Your task to perform on an android device: remove spam from my inbox in the gmail app Image 0: 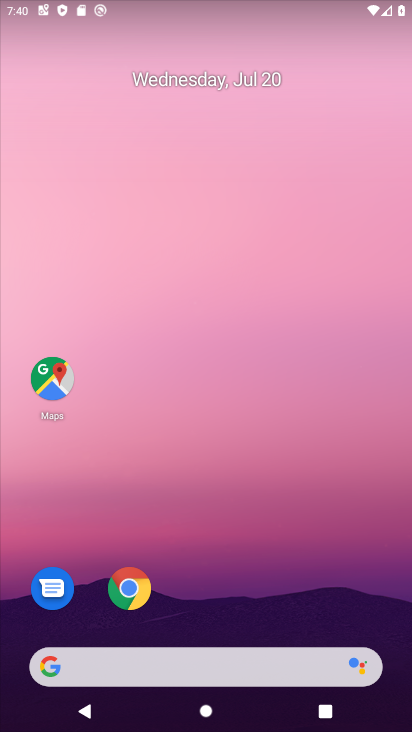
Step 0: drag from (218, 583) to (176, 23)
Your task to perform on an android device: remove spam from my inbox in the gmail app Image 1: 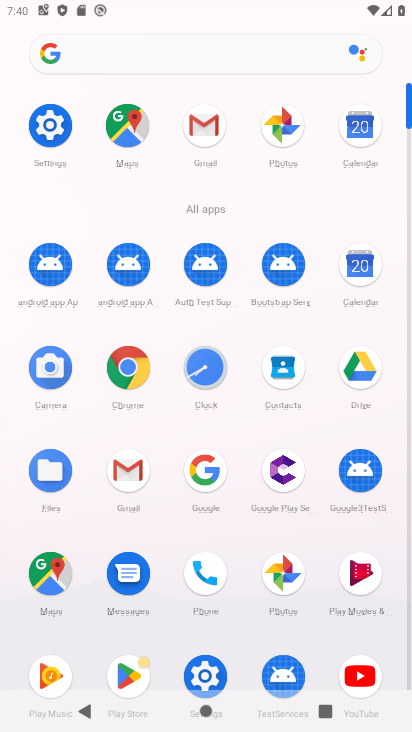
Step 1: click (127, 474)
Your task to perform on an android device: remove spam from my inbox in the gmail app Image 2: 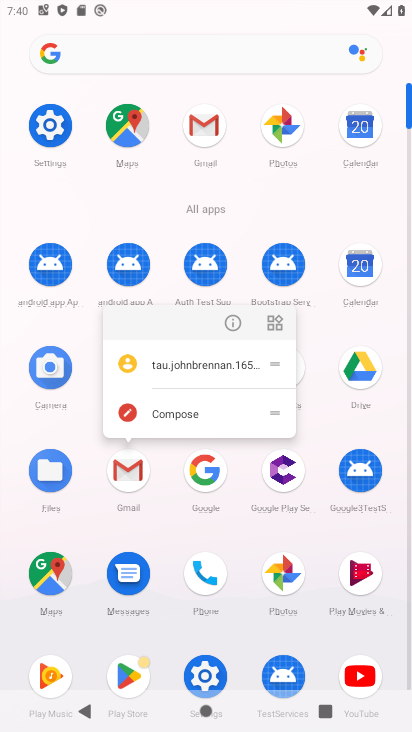
Step 2: click (127, 474)
Your task to perform on an android device: remove spam from my inbox in the gmail app Image 3: 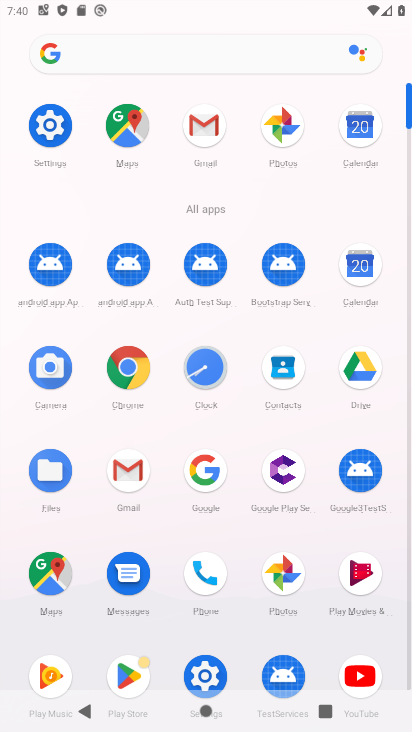
Step 3: click (127, 474)
Your task to perform on an android device: remove spam from my inbox in the gmail app Image 4: 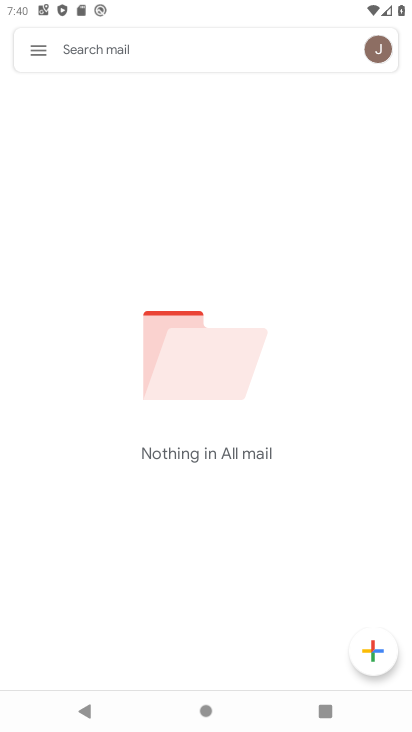
Step 4: click (37, 54)
Your task to perform on an android device: remove spam from my inbox in the gmail app Image 5: 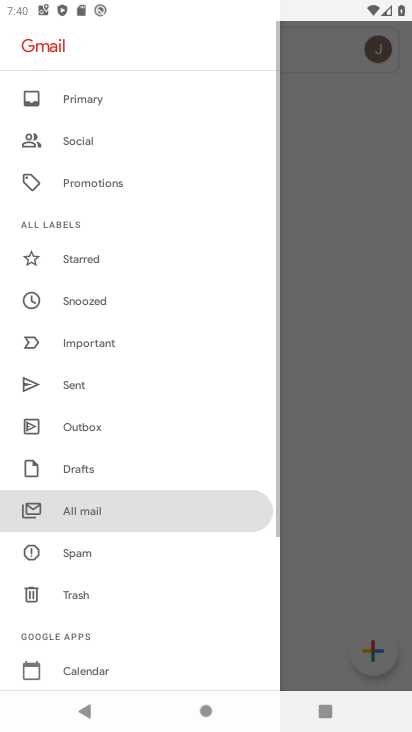
Step 5: click (85, 550)
Your task to perform on an android device: remove spam from my inbox in the gmail app Image 6: 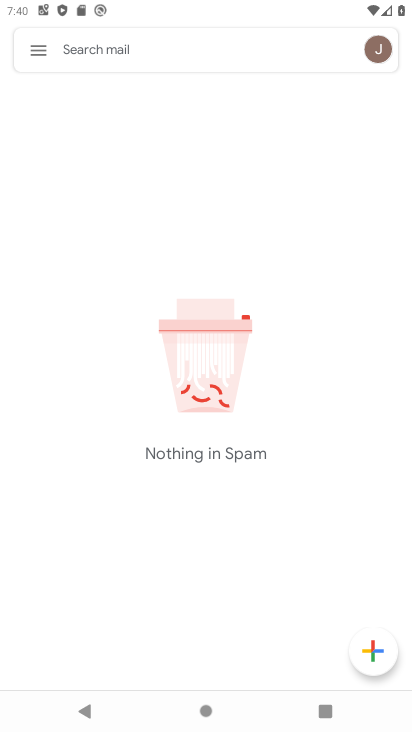
Step 6: task complete